Your task to perform on an android device: toggle pop-ups in chrome Image 0: 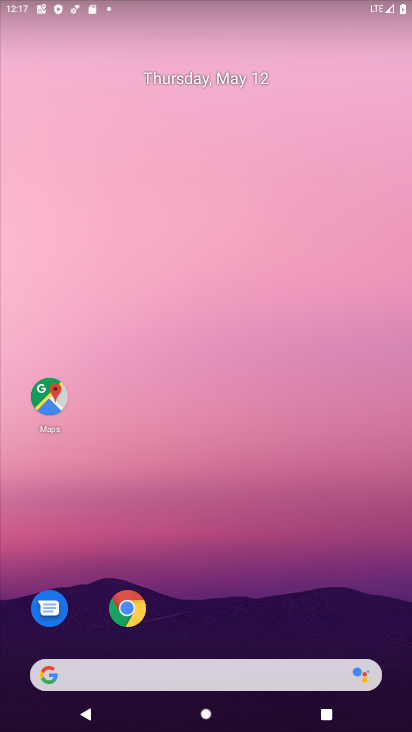
Step 0: click (136, 613)
Your task to perform on an android device: toggle pop-ups in chrome Image 1: 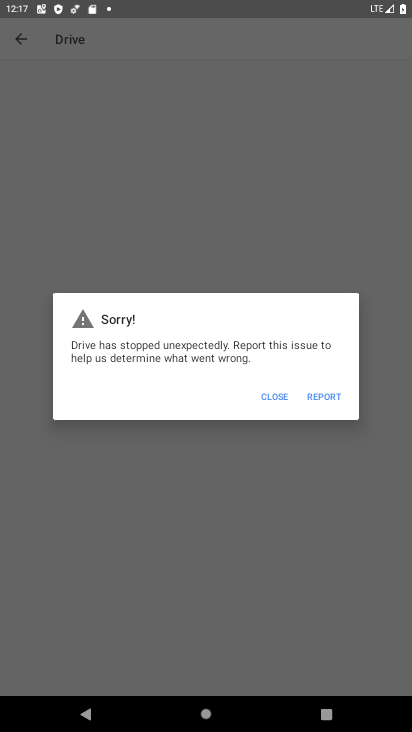
Step 1: press home button
Your task to perform on an android device: toggle pop-ups in chrome Image 2: 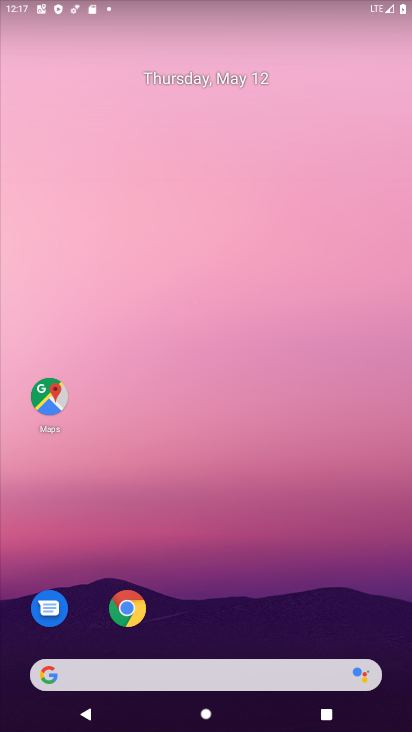
Step 2: click (135, 607)
Your task to perform on an android device: toggle pop-ups in chrome Image 3: 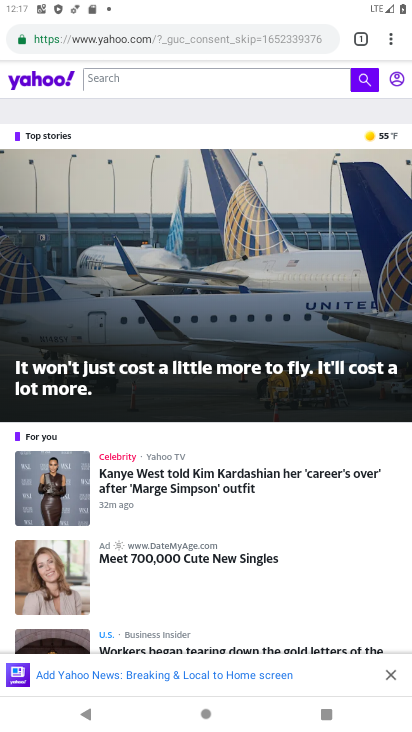
Step 3: click (391, 40)
Your task to perform on an android device: toggle pop-ups in chrome Image 4: 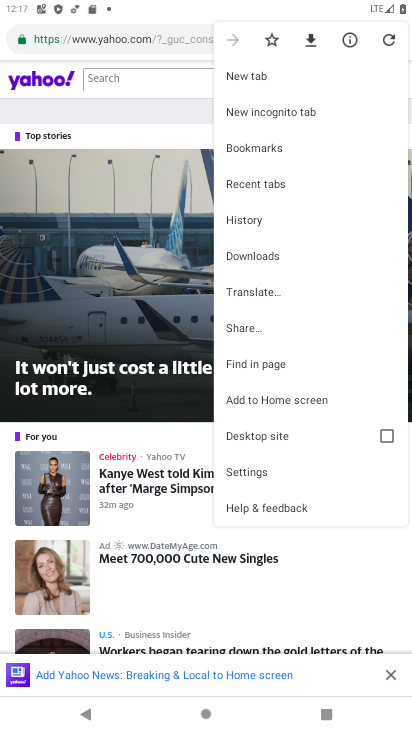
Step 4: click (241, 472)
Your task to perform on an android device: toggle pop-ups in chrome Image 5: 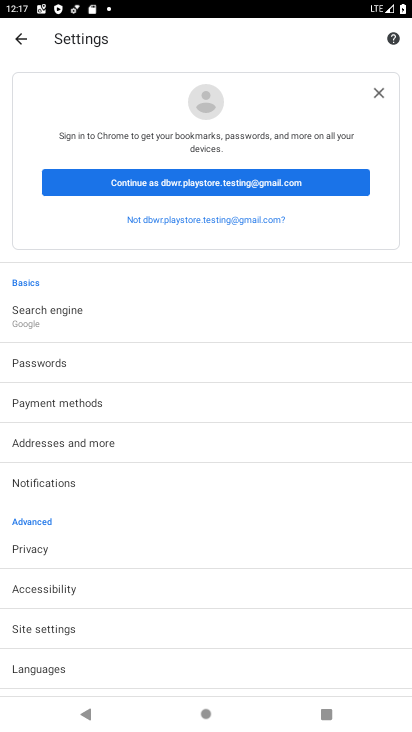
Step 5: click (73, 628)
Your task to perform on an android device: toggle pop-ups in chrome Image 6: 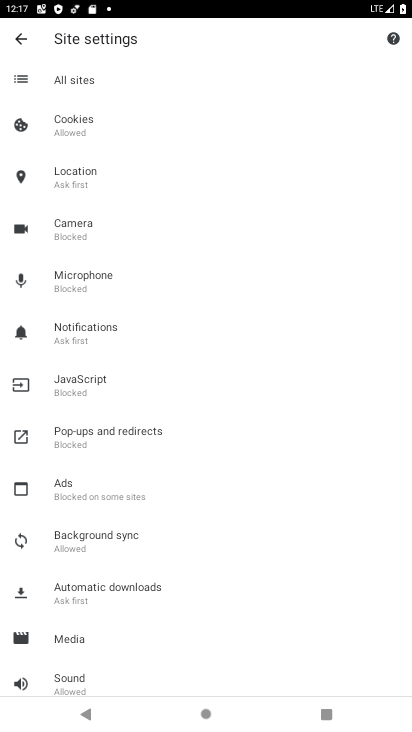
Step 6: click (102, 427)
Your task to perform on an android device: toggle pop-ups in chrome Image 7: 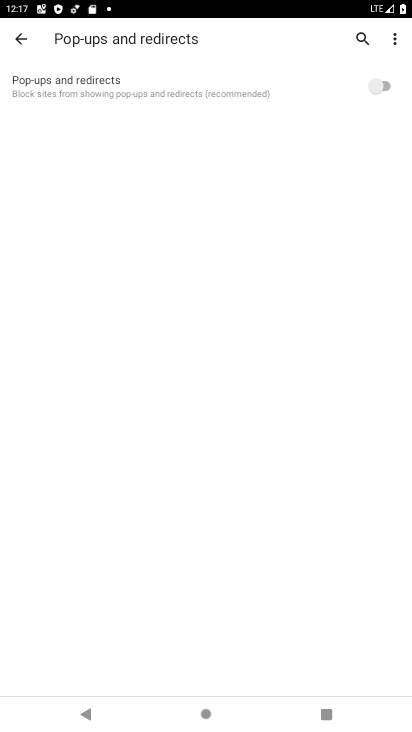
Step 7: click (374, 88)
Your task to perform on an android device: toggle pop-ups in chrome Image 8: 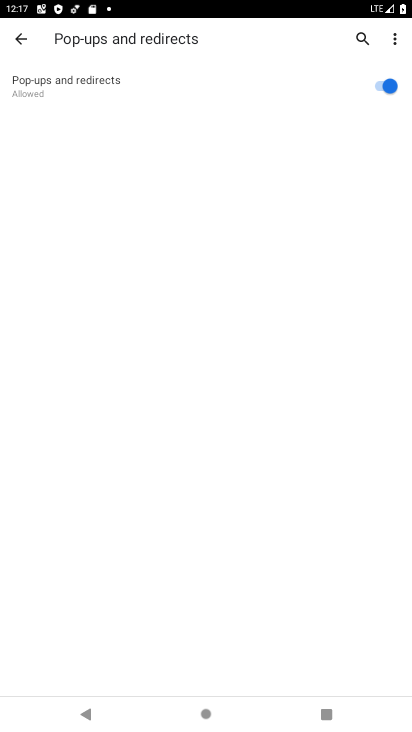
Step 8: task complete